Your task to perform on an android device: allow cookies in the chrome app Image 0: 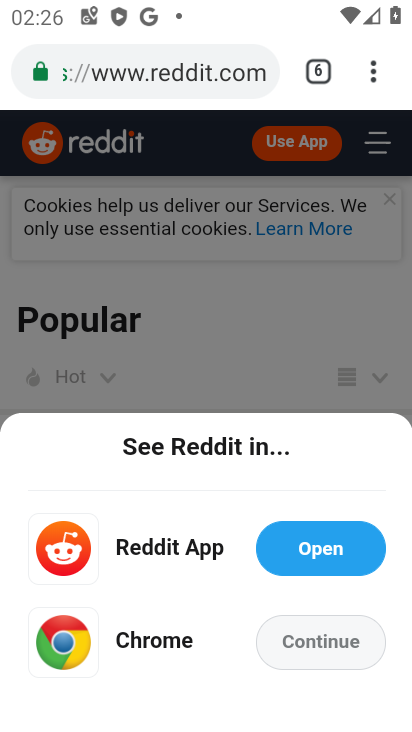
Step 0: press home button
Your task to perform on an android device: allow cookies in the chrome app Image 1: 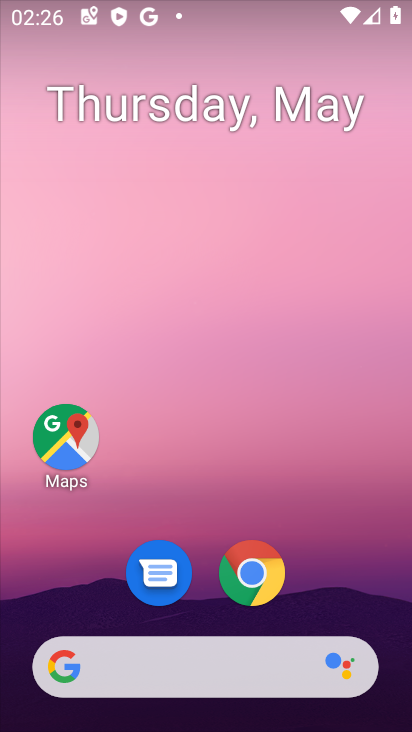
Step 1: drag from (304, 604) to (310, 297)
Your task to perform on an android device: allow cookies in the chrome app Image 2: 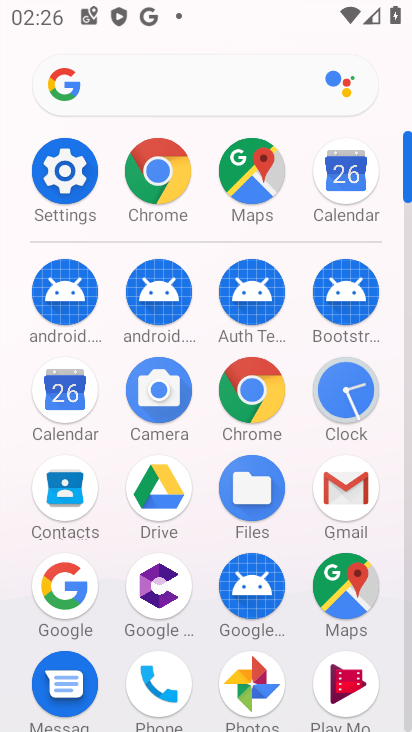
Step 2: click (249, 385)
Your task to perform on an android device: allow cookies in the chrome app Image 3: 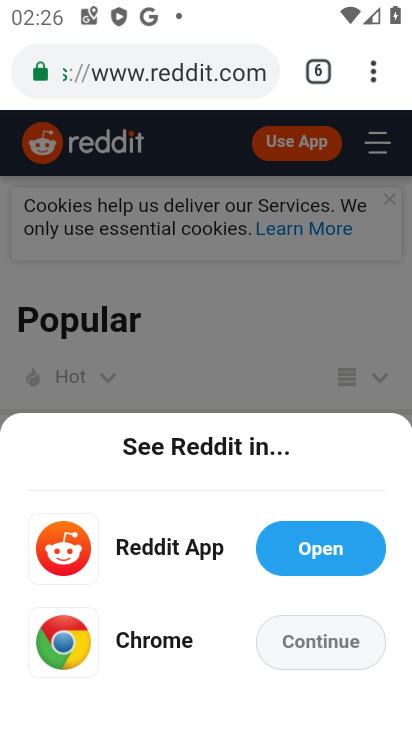
Step 3: click (381, 78)
Your task to perform on an android device: allow cookies in the chrome app Image 4: 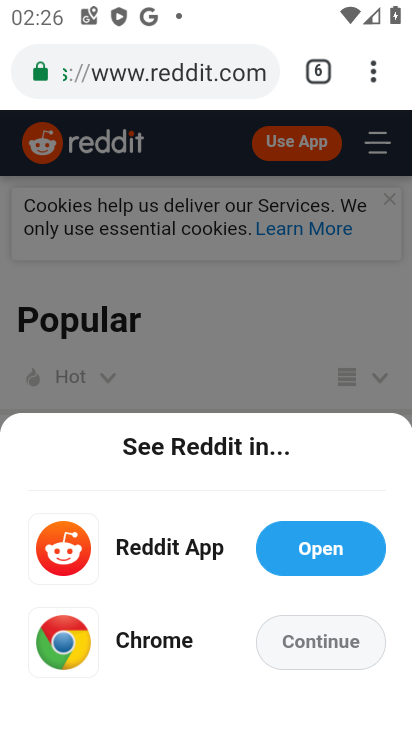
Step 4: click (374, 70)
Your task to perform on an android device: allow cookies in the chrome app Image 5: 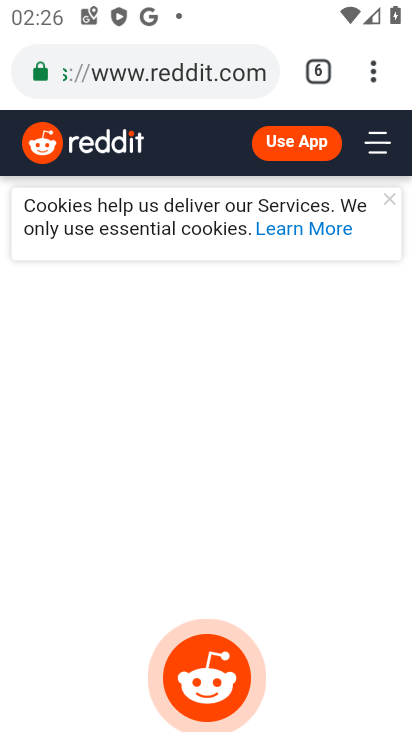
Step 5: click (375, 72)
Your task to perform on an android device: allow cookies in the chrome app Image 6: 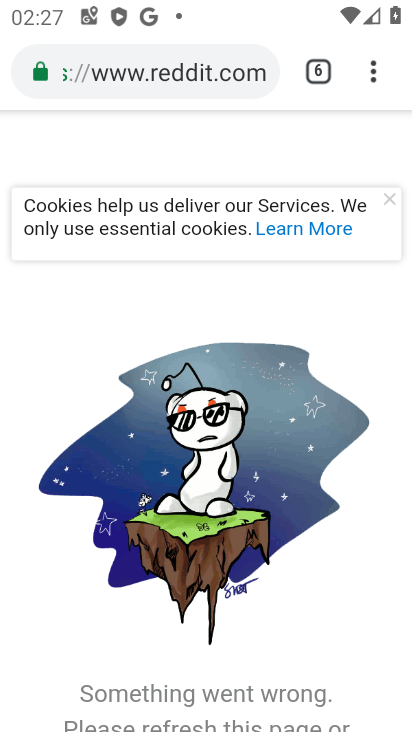
Step 6: click (375, 72)
Your task to perform on an android device: allow cookies in the chrome app Image 7: 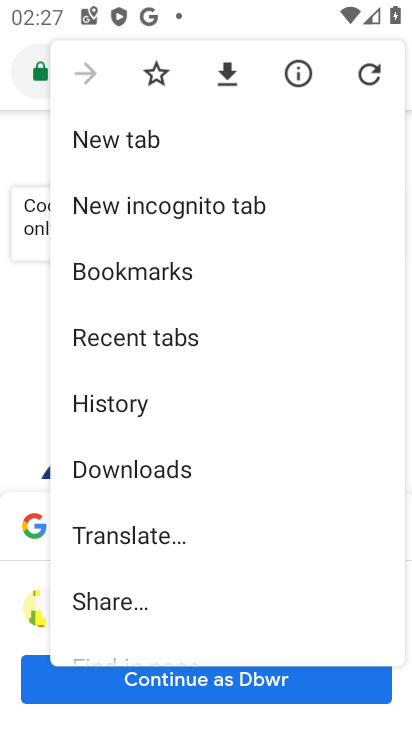
Step 7: drag from (198, 583) to (220, 310)
Your task to perform on an android device: allow cookies in the chrome app Image 8: 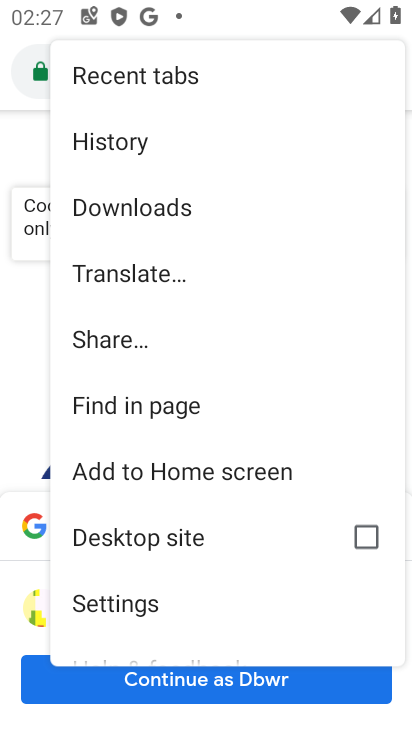
Step 8: drag from (231, 160) to (261, 541)
Your task to perform on an android device: allow cookies in the chrome app Image 9: 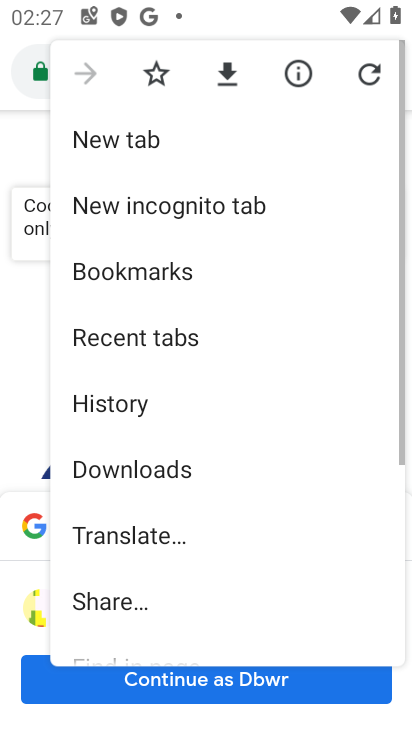
Step 9: drag from (158, 552) to (208, 317)
Your task to perform on an android device: allow cookies in the chrome app Image 10: 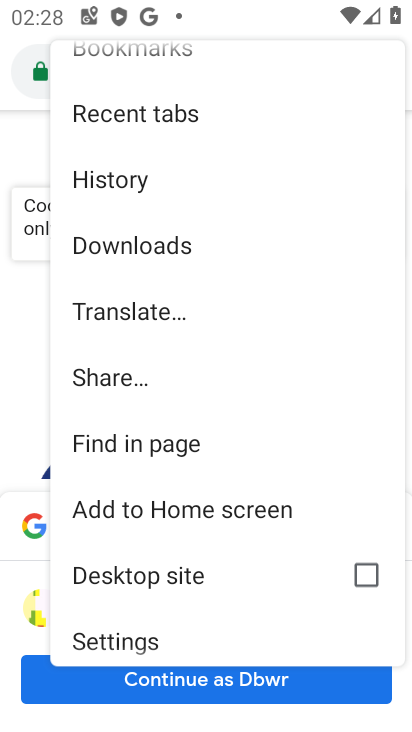
Step 10: click (144, 633)
Your task to perform on an android device: allow cookies in the chrome app Image 11: 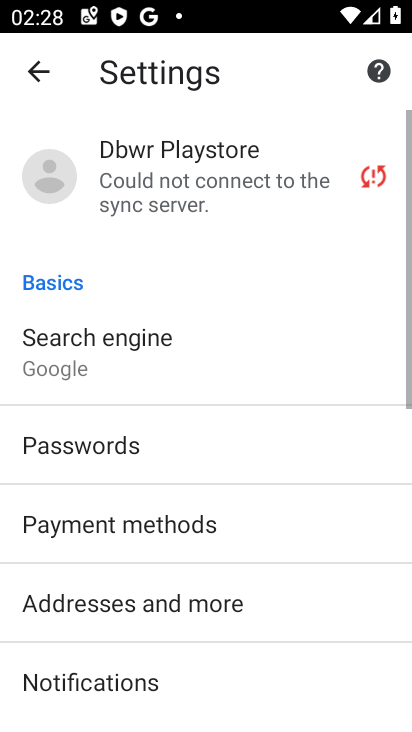
Step 11: drag from (170, 607) to (206, 321)
Your task to perform on an android device: allow cookies in the chrome app Image 12: 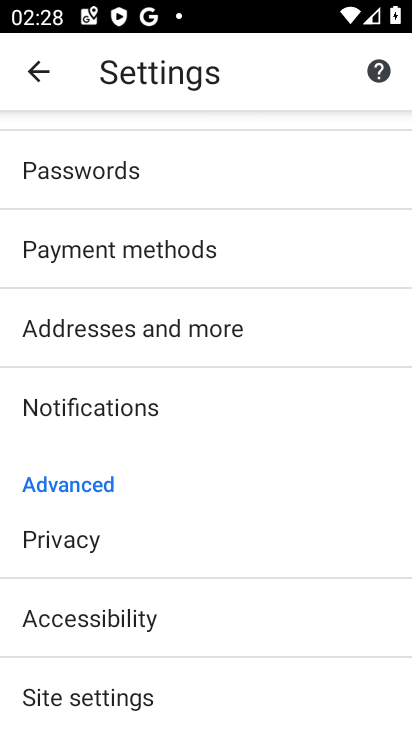
Step 12: drag from (146, 638) to (207, 221)
Your task to perform on an android device: allow cookies in the chrome app Image 13: 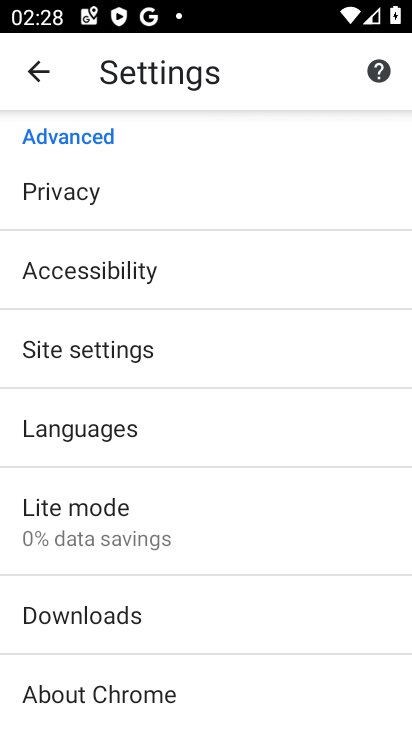
Step 13: drag from (136, 626) to (153, 482)
Your task to perform on an android device: allow cookies in the chrome app Image 14: 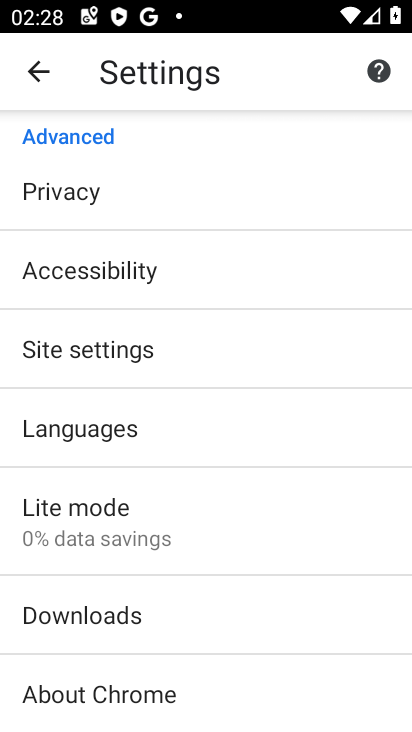
Step 14: click (135, 335)
Your task to perform on an android device: allow cookies in the chrome app Image 15: 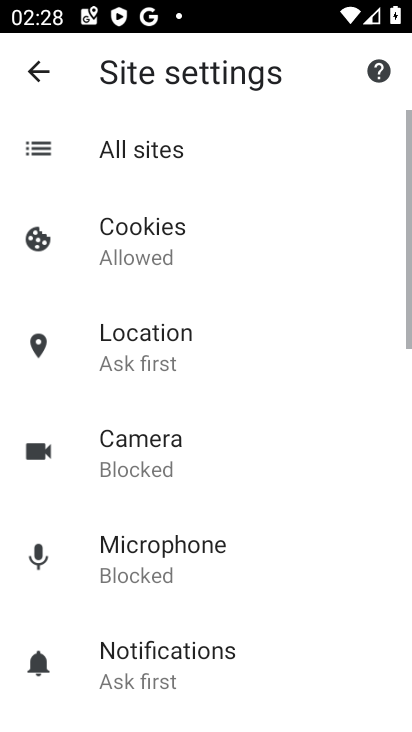
Step 15: click (189, 226)
Your task to perform on an android device: allow cookies in the chrome app Image 16: 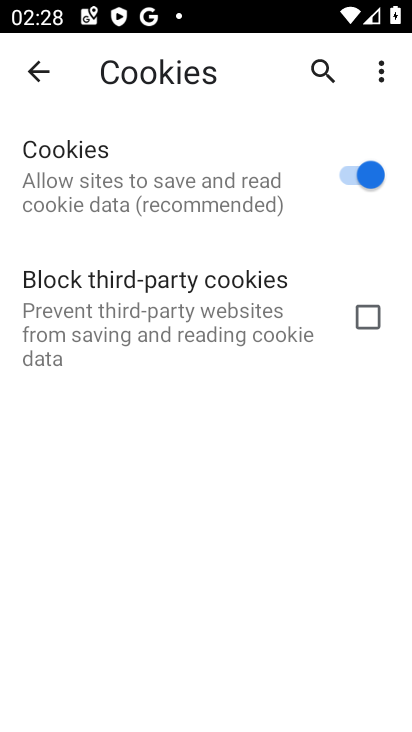
Step 16: task complete